Your task to perform on an android device: find snoozed emails in the gmail app Image 0: 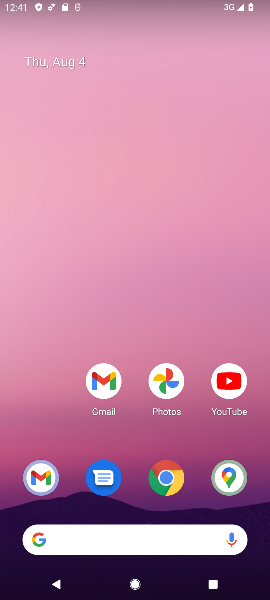
Step 0: press home button
Your task to perform on an android device: find snoozed emails in the gmail app Image 1: 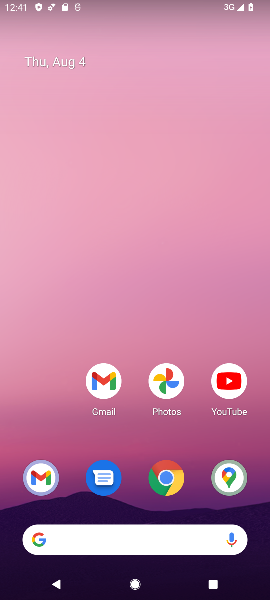
Step 1: drag from (34, 413) to (23, 103)
Your task to perform on an android device: find snoozed emails in the gmail app Image 2: 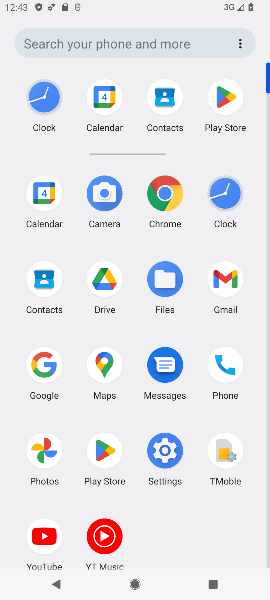
Step 2: click (109, 366)
Your task to perform on an android device: find snoozed emails in the gmail app Image 3: 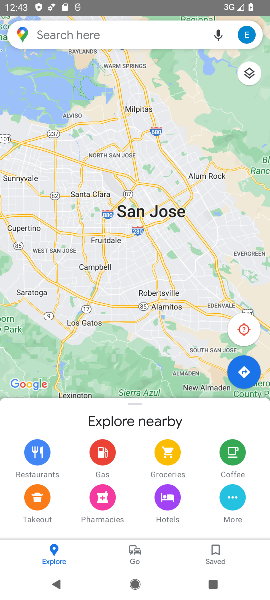
Step 3: click (246, 33)
Your task to perform on an android device: find snoozed emails in the gmail app Image 4: 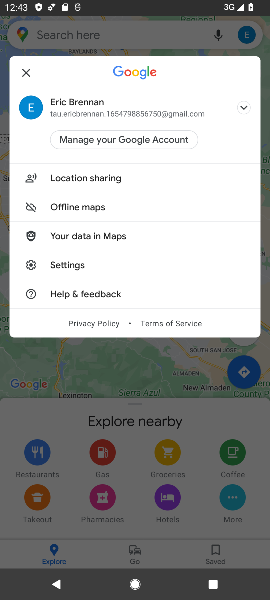
Step 4: press home button
Your task to perform on an android device: find snoozed emails in the gmail app Image 5: 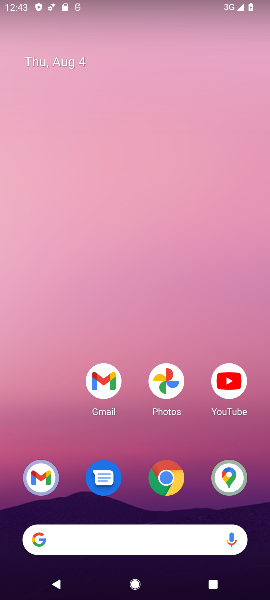
Step 5: click (99, 377)
Your task to perform on an android device: find snoozed emails in the gmail app Image 6: 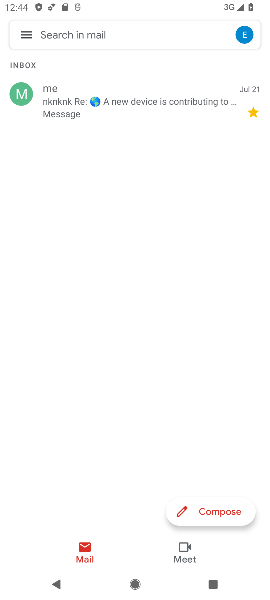
Step 6: click (27, 45)
Your task to perform on an android device: find snoozed emails in the gmail app Image 7: 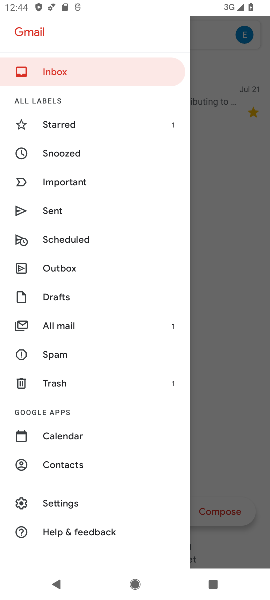
Step 7: click (35, 154)
Your task to perform on an android device: find snoozed emails in the gmail app Image 8: 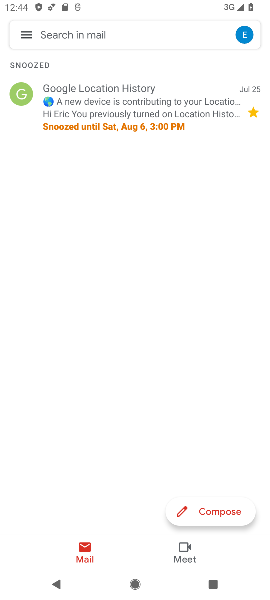
Step 8: task complete